Your task to perform on an android device: see tabs open on other devices in the chrome app Image 0: 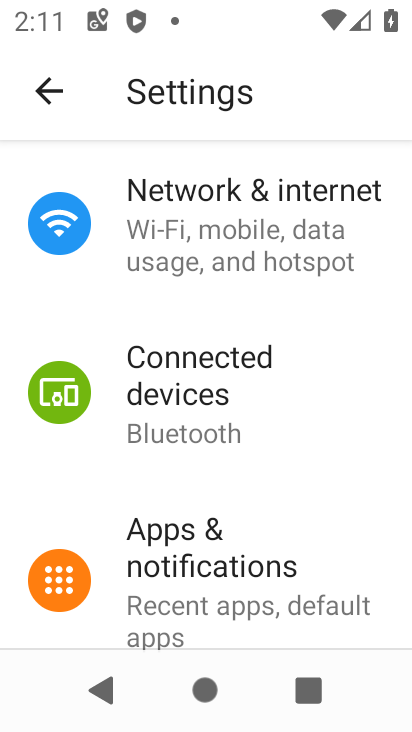
Step 0: press back button
Your task to perform on an android device: see tabs open on other devices in the chrome app Image 1: 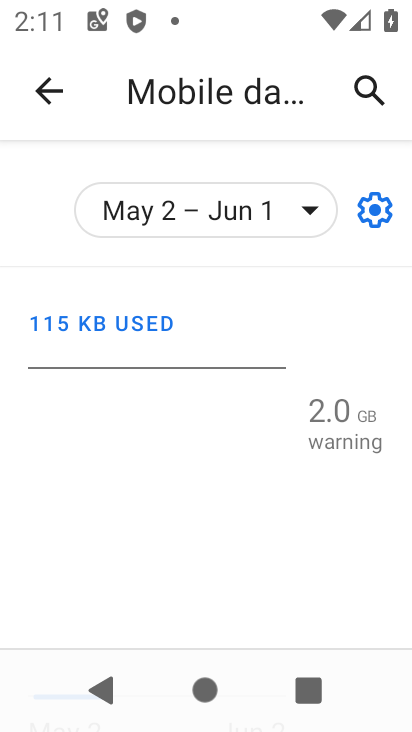
Step 1: press back button
Your task to perform on an android device: see tabs open on other devices in the chrome app Image 2: 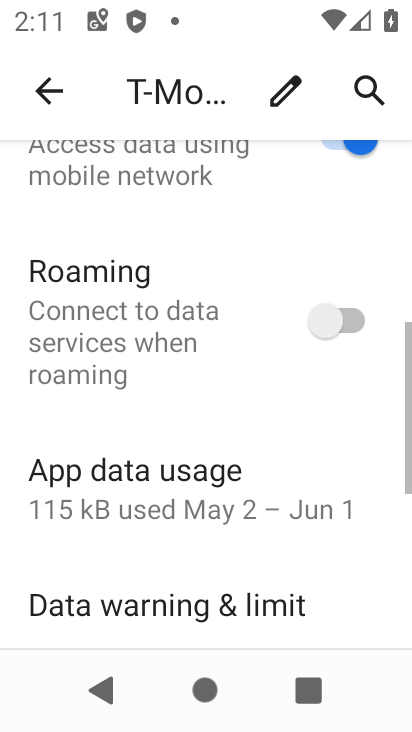
Step 2: press back button
Your task to perform on an android device: see tabs open on other devices in the chrome app Image 3: 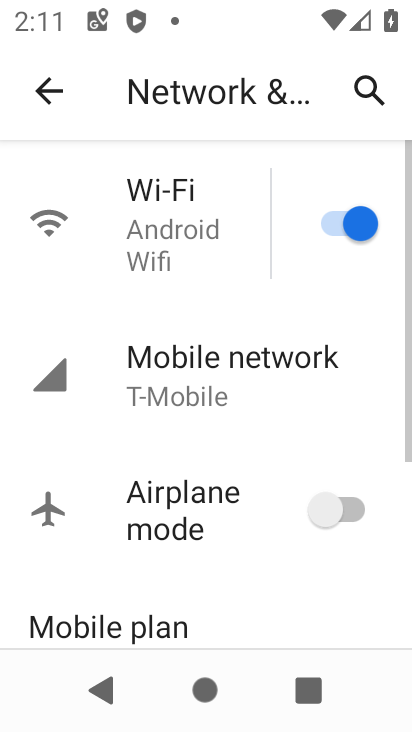
Step 3: press back button
Your task to perform on an android device: see tabs open on other devices in the chrome app Image 4: 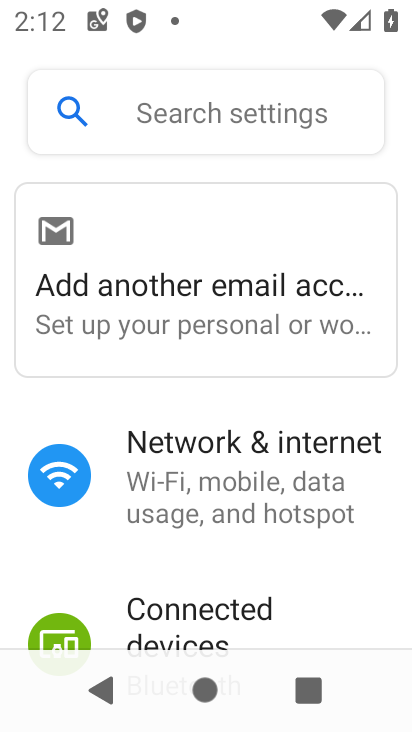
Step 4: press back button
Your task to perform on an android device: see tabs open on other devices in the chrome app Image 5: 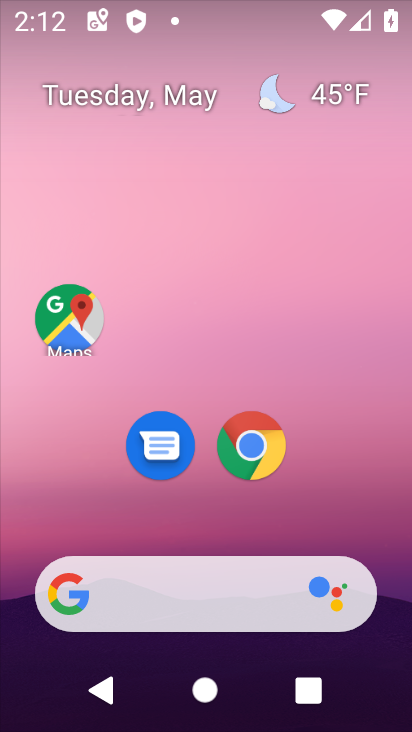
Step 5: click (261, 446)
Your task to perform on an android device: see tabs open on other devices in the chrome app Image 6: 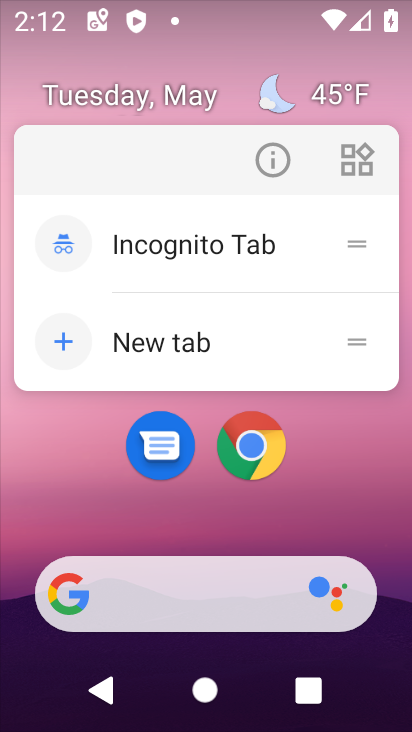
Step 6: click (258, 439)
Your task to perform on an android device: see tabs open on other devices in the chrome app Image 7: 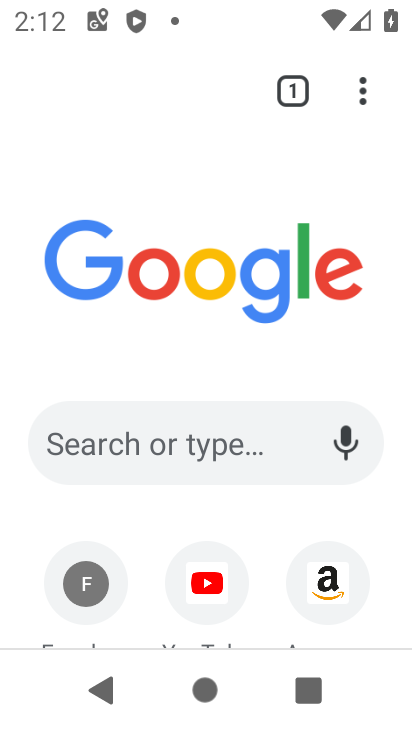
Step 7: task complete